Your task to perform on an android device: check data usage Image 0: 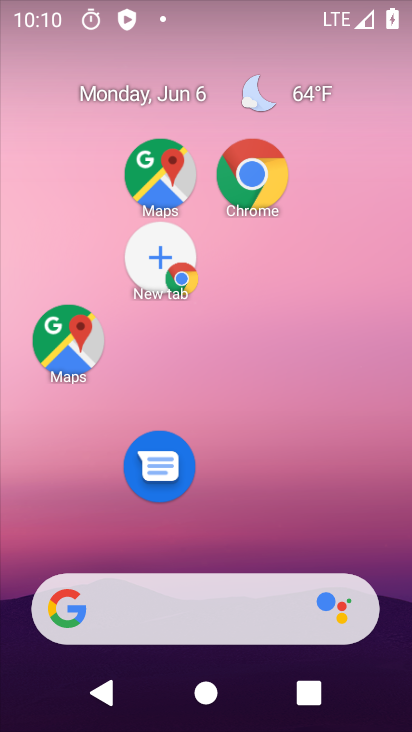
Step 0: press back button
Your task to perform on an android device: check data usage Image 1: 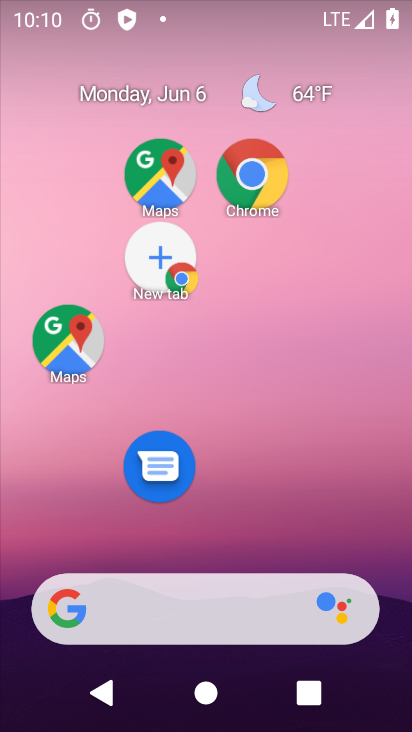
Step 1: drag from (190, 282) to (172, 180)
Your task to perform on an android device: check data usage Image 2: 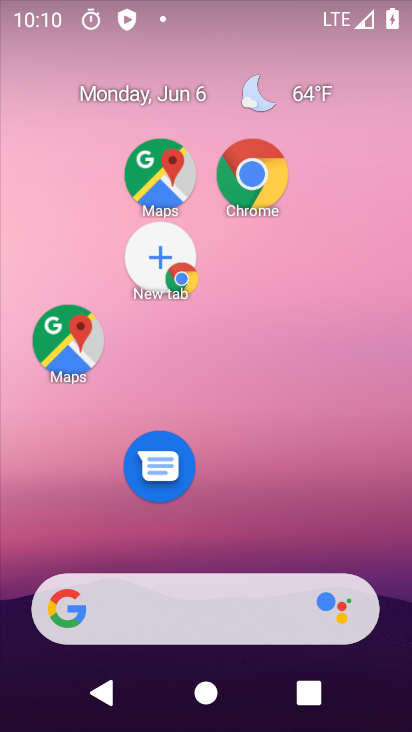
Step 2: drag from (249, 654) to (185, 208)
Your task to perform on an android device: check data usage Image 3: 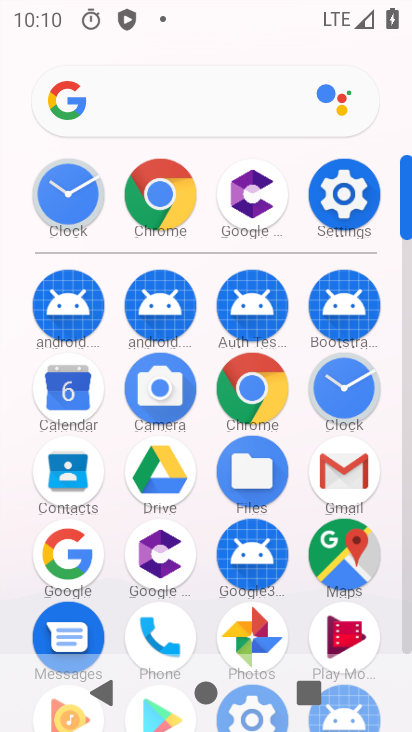
Step 3: click (350, 179)
Your task to perform on an android device: check data usage Image 4: 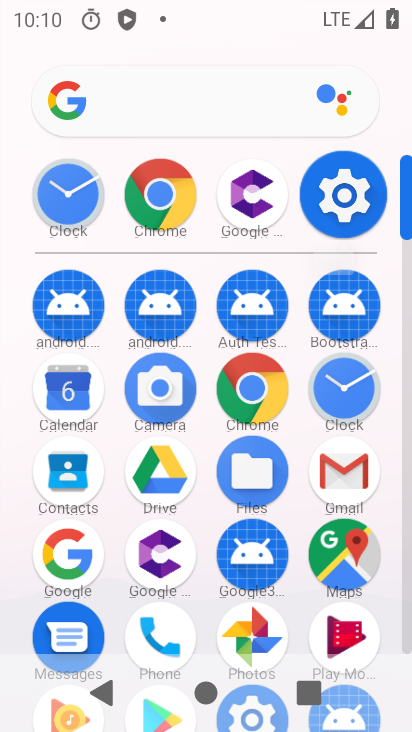
Step 4: click (352, 209)
Your task to perform on an android device: check data usage Image 5: 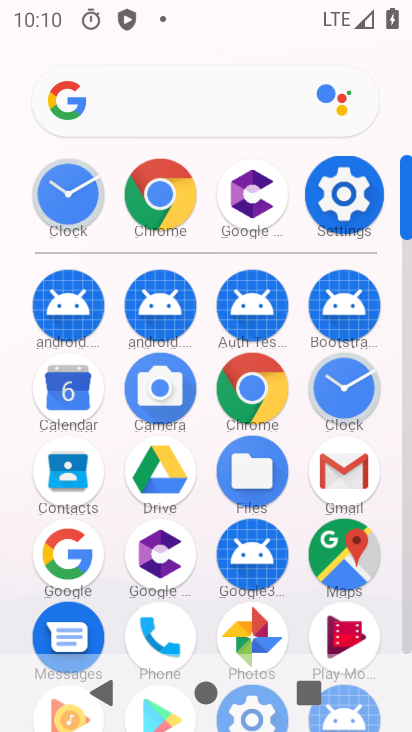
Step 5: click (353, 209)
Your task to perform on an android device: check data usage Image 6: 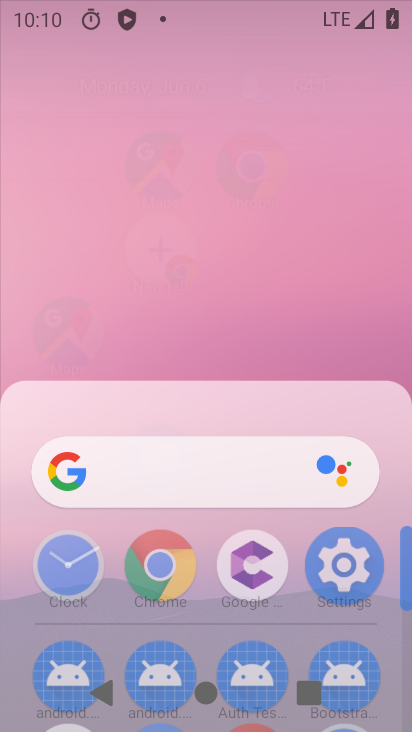
Step 6: click (354, 209)
Your task to perform on an android device: check data usage Image 7: 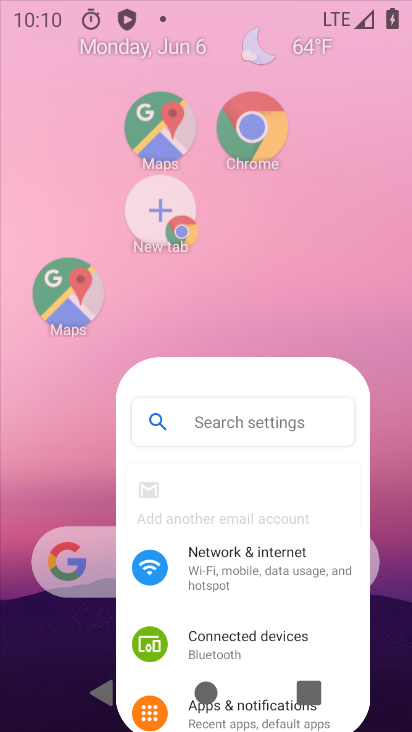
Step 7: click (354, 209)
Your task to perform on an android device: check data usage Image 8: 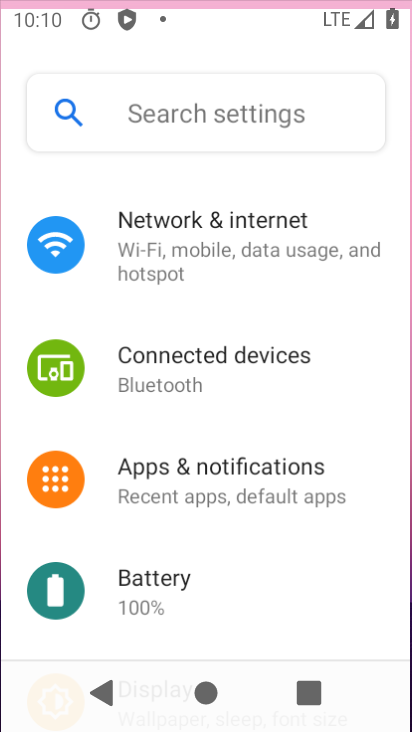
Step 8: click (356, 207)
Your task to perform on an android device: check data usage Image 9: 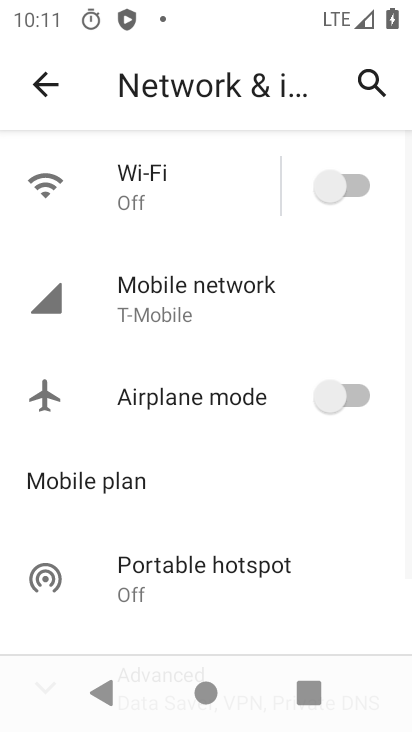
Step 9: click (43, 86)
Your task to perform on an android device: check data usage Image 10: 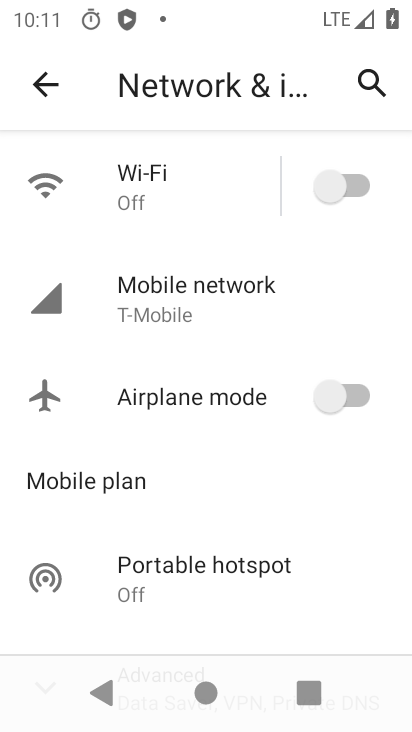
Step 10: click (42, 84)
Your task to perform on an android device: check data usage Image 11: 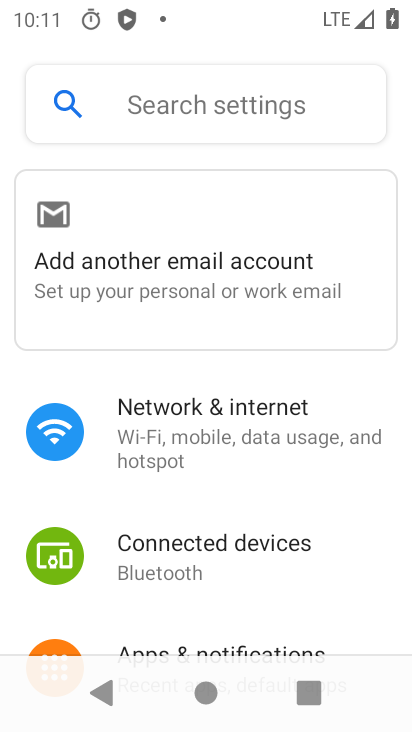
Step 11: click (216, 420)
Your task to perform on an android device: check data usage Image 12: 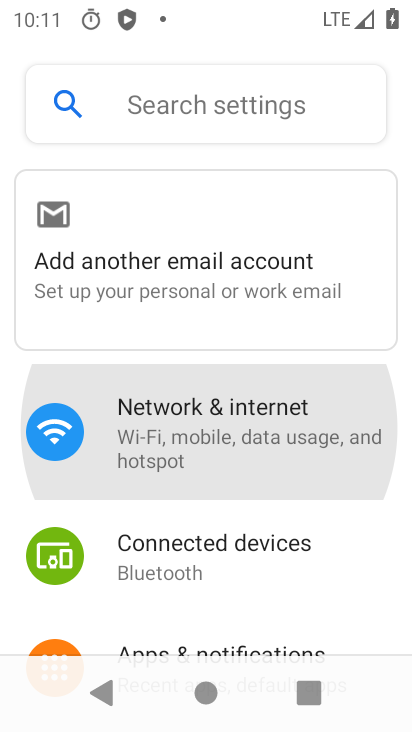
Step 12: click (216, 420)
Your task to perform on an android device: check data usage Image 13: 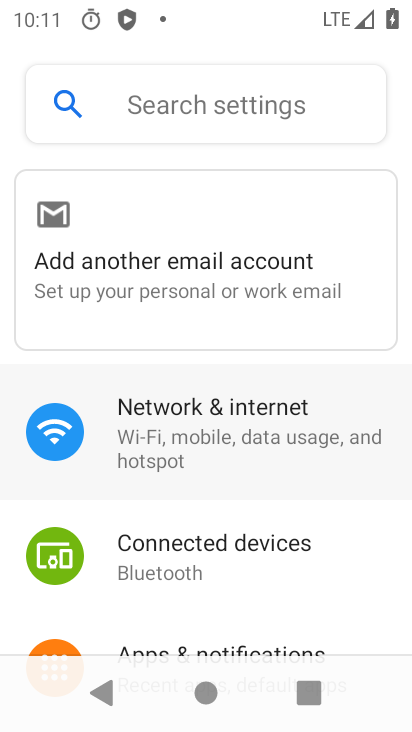
Step 13: click (216, 420)
Your task to perform on an android device: check data usage Image 14: 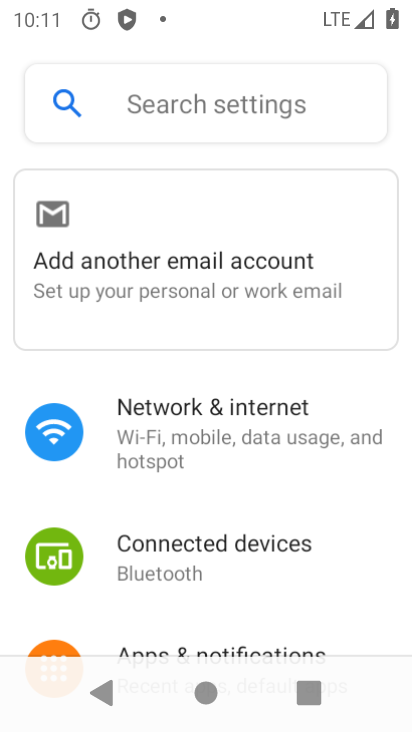
Step 14: click (216, 420)
Your task to perform on an android device: check data usage Image 15: 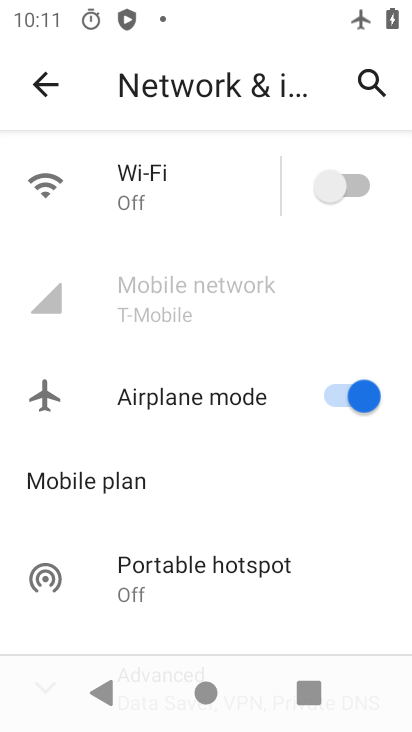
Step 15: click (155, 295)
Your task to perform on an android device: check data usage Image 16: 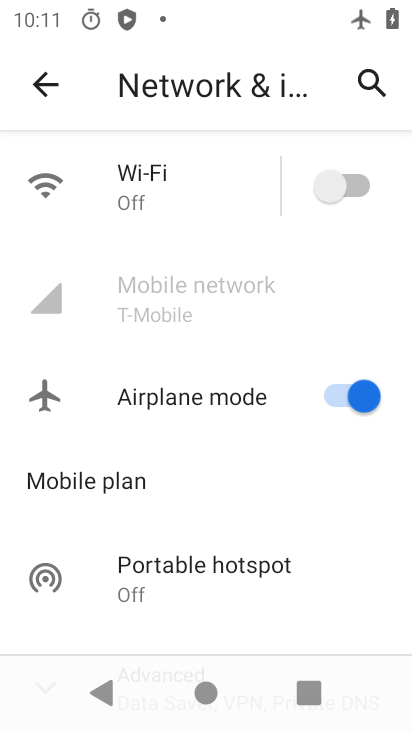
Step 16: click (155, 295)
Your task to perform on an android device: check data usage Image 17: 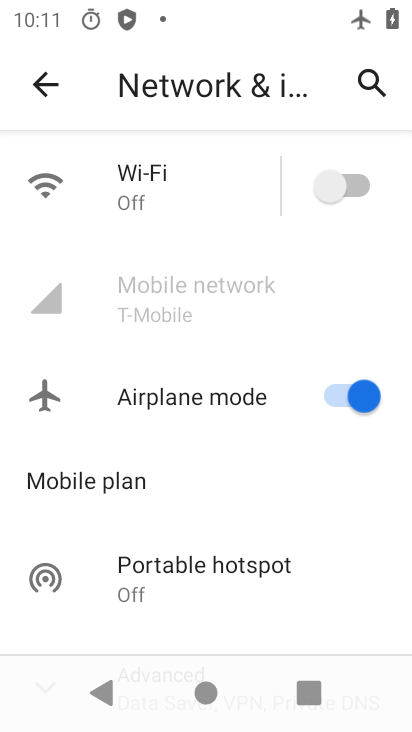
Step 17: click (155, 295)
Your task to perform on an android device: check data usage Image 18: 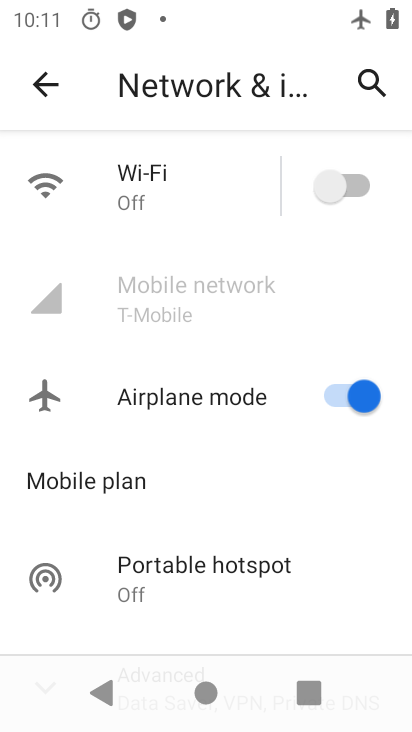
Step 18: click (366, 394)
Your task to perform on an android device: check data usage Image 19: 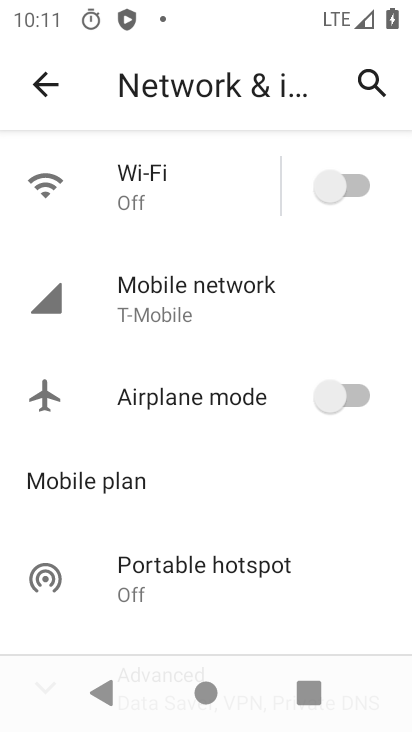
Step 19: click (322, 192)
Your task to perform on an android device: check data usage Image 20: 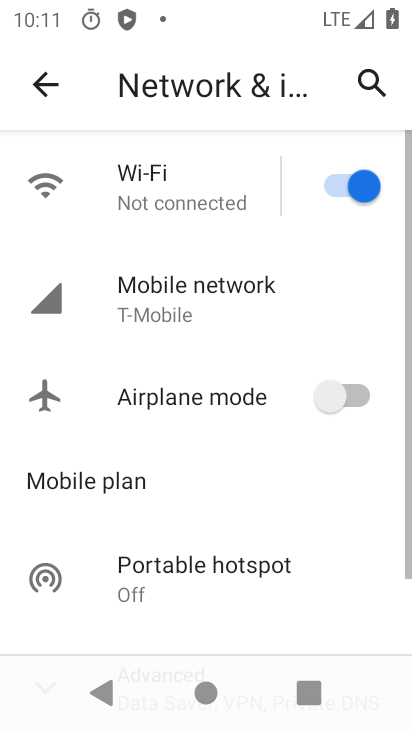
Step 20: click (180, 293)
Your task to perform on an android device: check data usage Image 21: 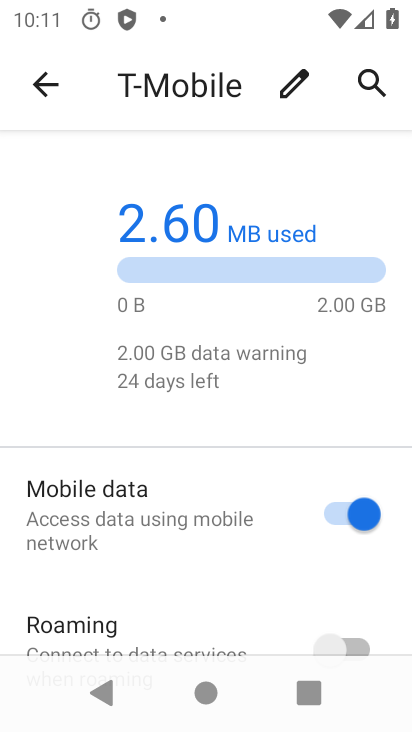
Step 21: click (41, 81)
Your task to perform on an android device: check data usage Image 22: 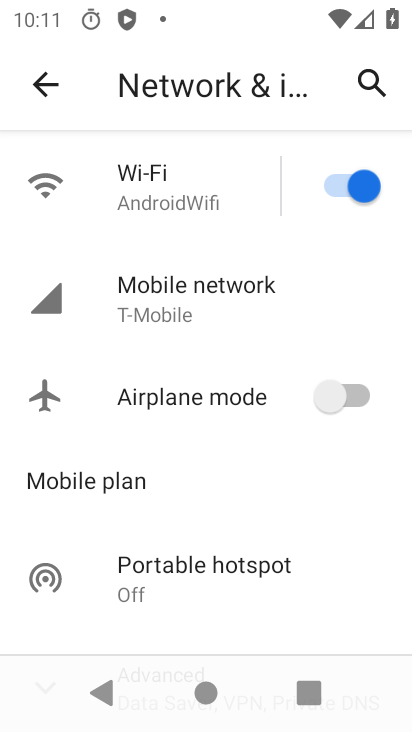
Step 22: task complete